Your task to perform on an android device: change alarm snooze length Image 0: 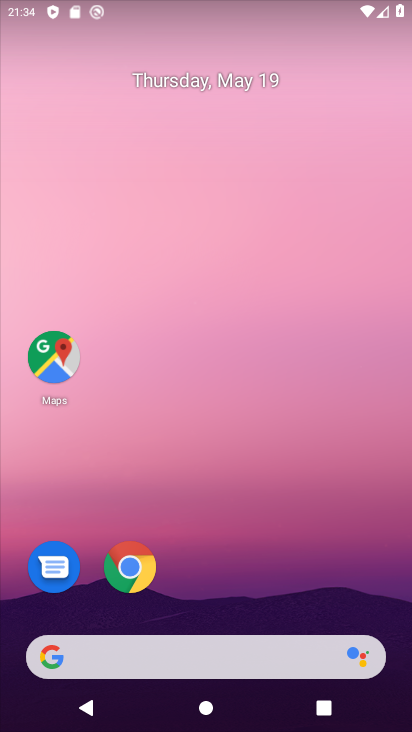
Step 0: press home button
Your task to perform on an android device: change alarm snooze length Image 1: 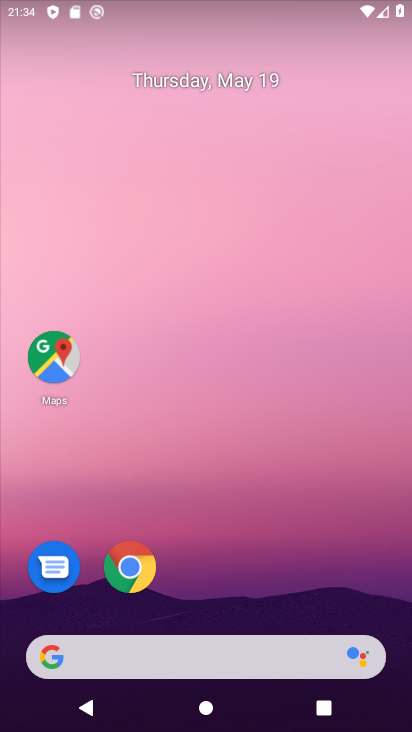
Step 1: drag from (209, 616) to (187, 40)
Your task to perform on an android device: change alarm snooze length Image 2: 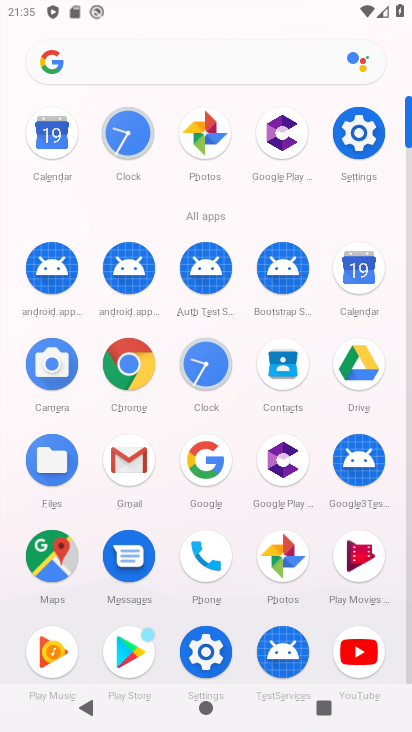
Step 2: click (198, 356)
Your task to perform on an android device: change alarm snooze length Image 3: 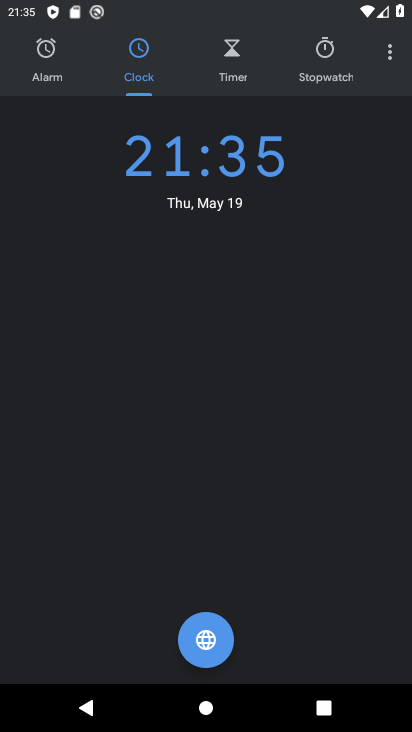
Step 3: click (404, 54)
Your task to perform on an android device: change alarm snooze length Image 4: 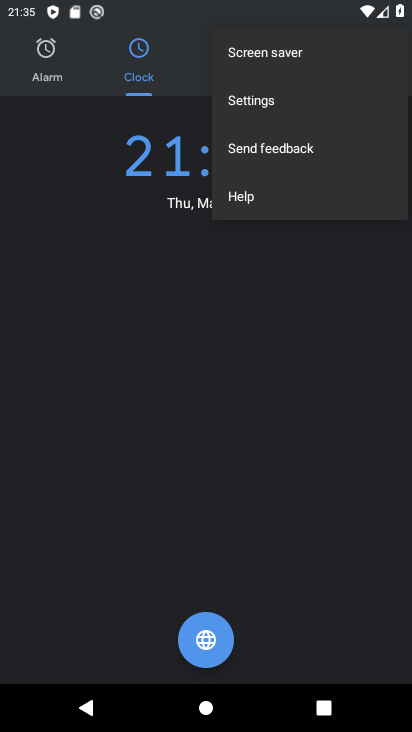
Step 4: click (275, 101)
Your task to perform on an android device: change alarm snooze length Image 5: 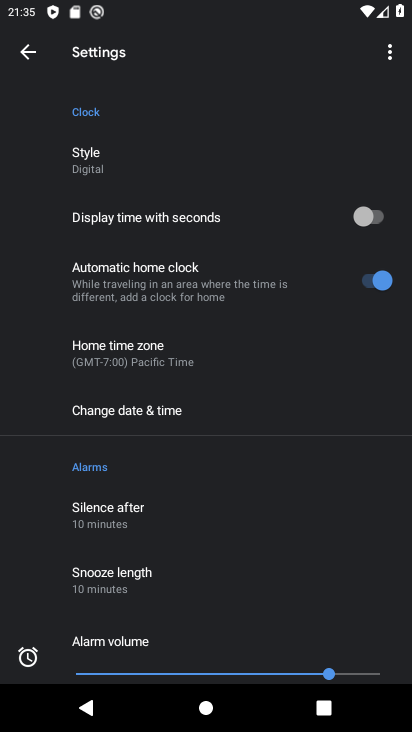
Step 5: click (161, 587)
Your task to perform on an android device: change alarm snooze length Image 6: 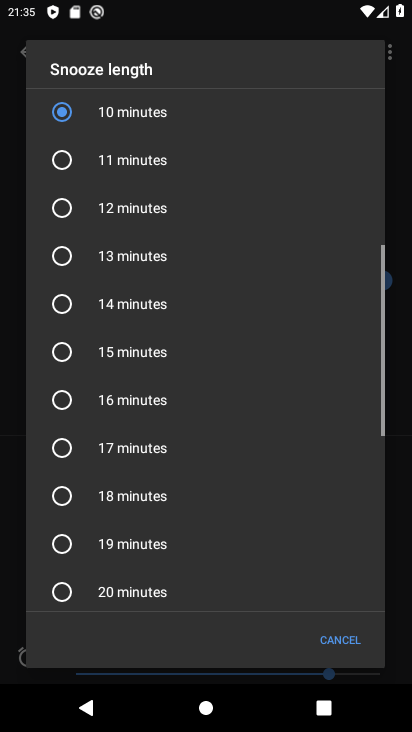
Step 6: drag from (76, 173) to (118, 509)
Your task to perform on an android device: change alarm snooze length Image 7: 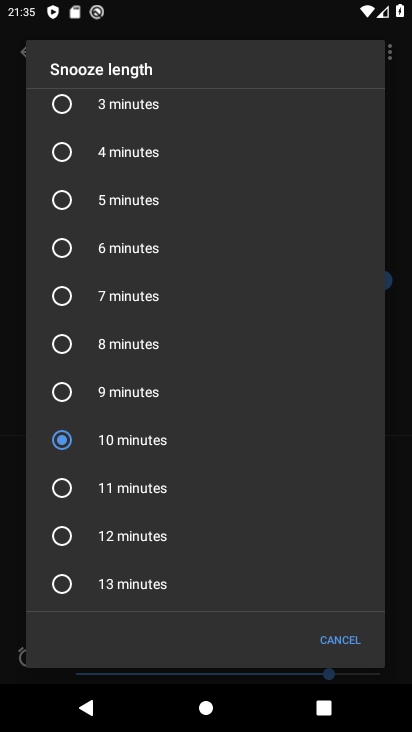
Step 7: click (64, 196)
Your task to perform on an android device: change alarm snooze length Image 8: 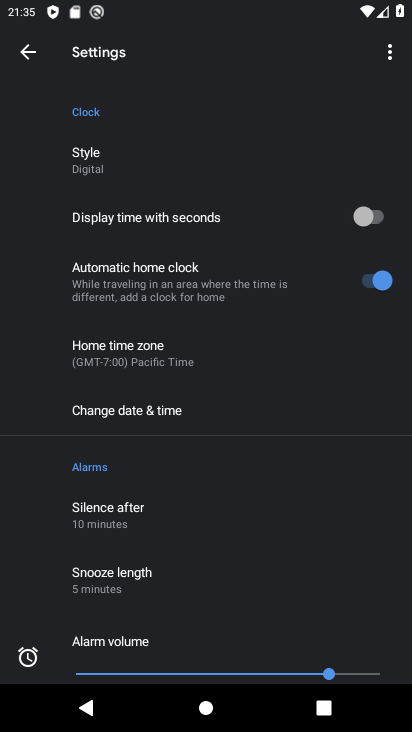
Step 8: task complete